Your task to perform on an android device: Open eBay Image 0: 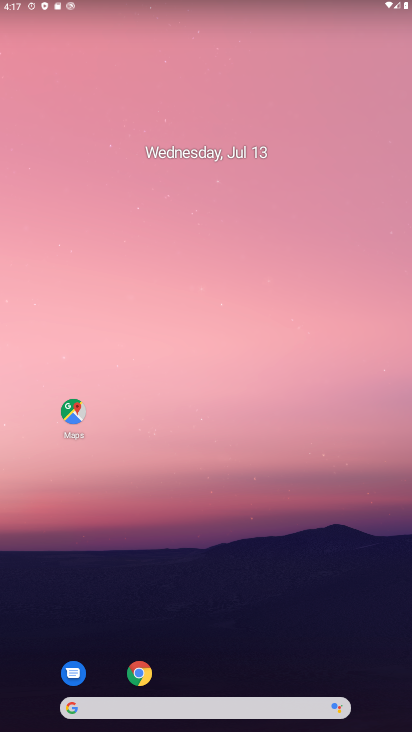
Step 0: click (136, 138)
Your task to perform on an android device: Open eBay Image 1: 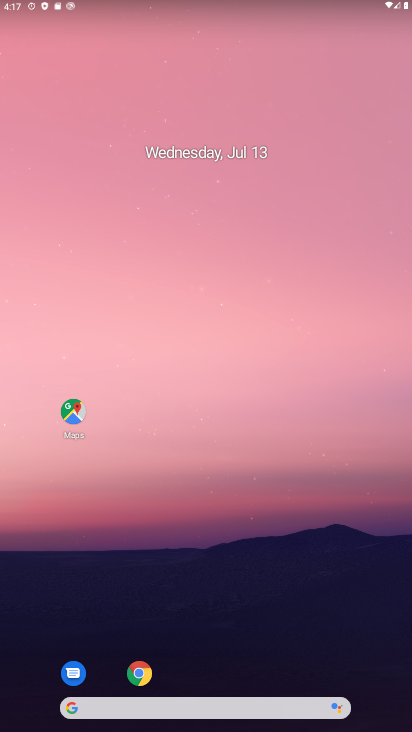
Step 1: drag from (232, 675) to (222, 187)
Your task to perform on an android device: Open eBay Image 2: 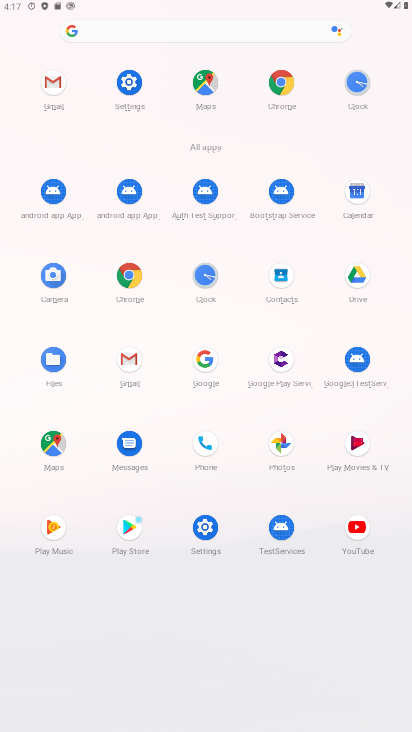
Step 2: click (286, 83)
Your task to perform on an android device: Open eBay Image 3: 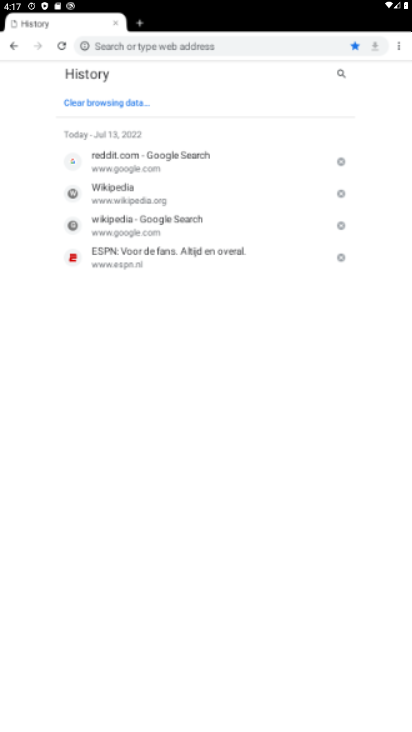
Step 3: click (285, 83)
Your task to perform on an android device: Open eBay Image 4: 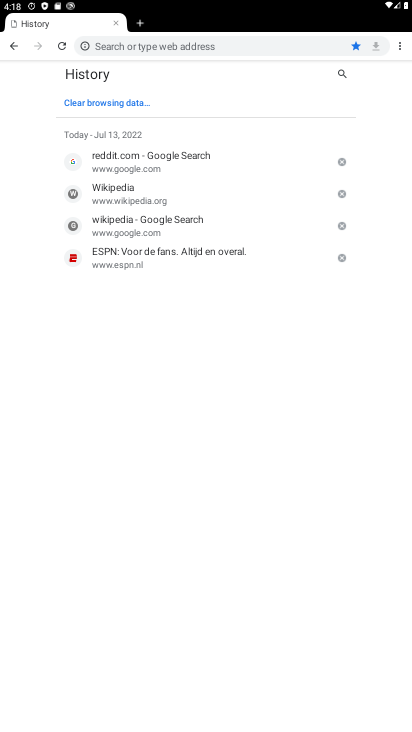
Step 4: click (7, 52)
Your task to perform on an android device: Open eBay Image 5: 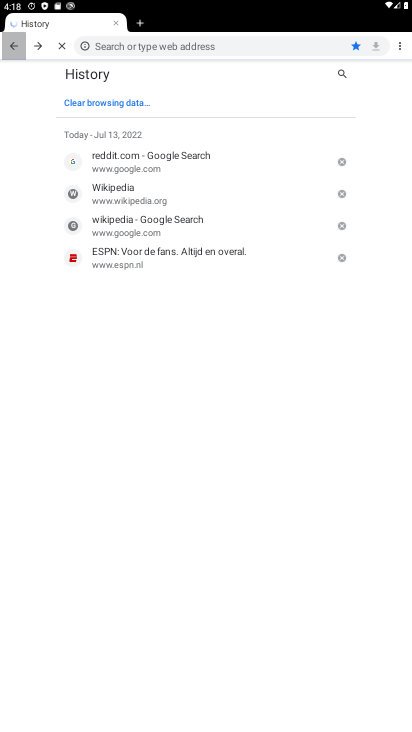
Step 5: click (9, 43)
Your task to perform on an android device: Open eBay Image 6: 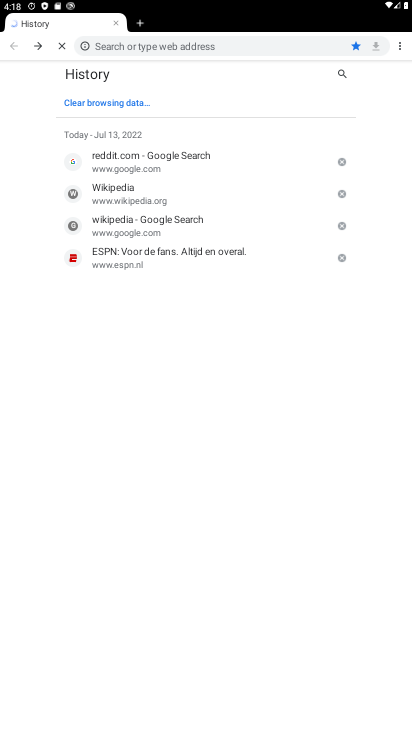
Step 6: drag from (398, 43) to (323, 191)
Your task to perform on an android device: Open eBay Image 7: 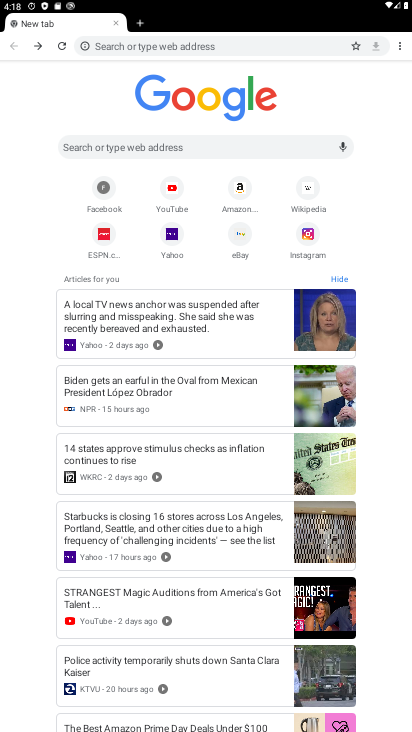
Step 7: click (227, 239)
Your task to perform on an android device: Open eBay Image 8: 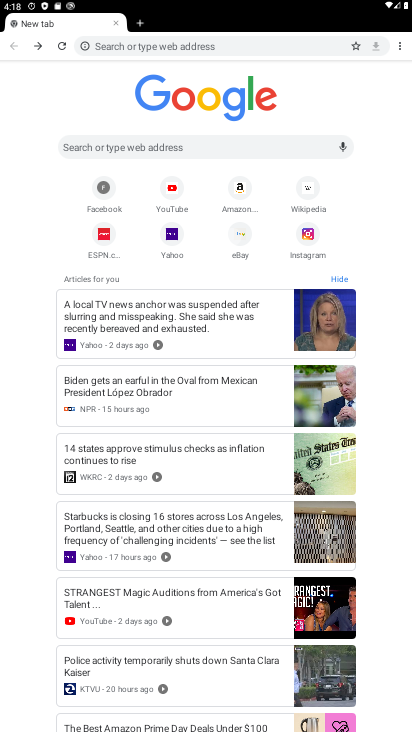
Step 8: click (230, 238)
Your task to perform on an android device: Open eBay Image 9: 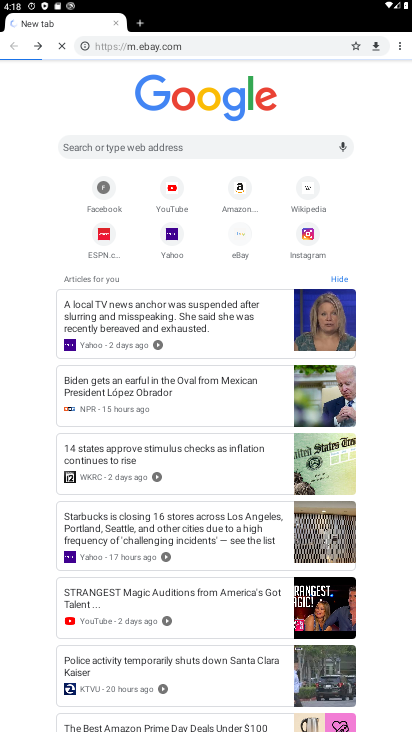
Step 9: click (235, 236)
Your task to perform on an android device: Open eBay Image 10: 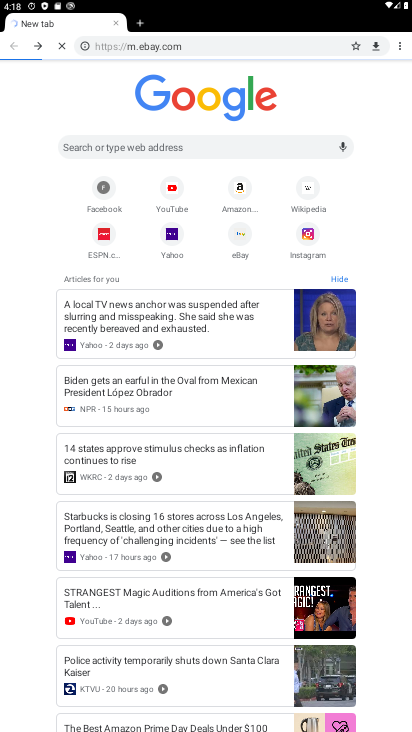
Step 10: click (237, 236)
Your task to perform on an android device: Open eBay Image 11: 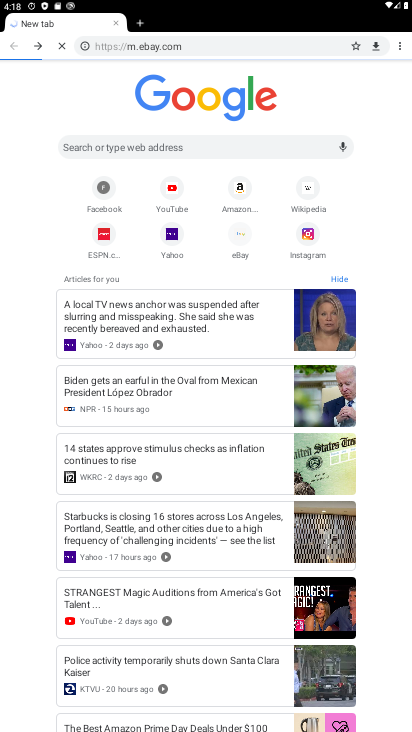
Step 11: click (237, 236)
Your task to perform on an android device: Open eBay Image 12: 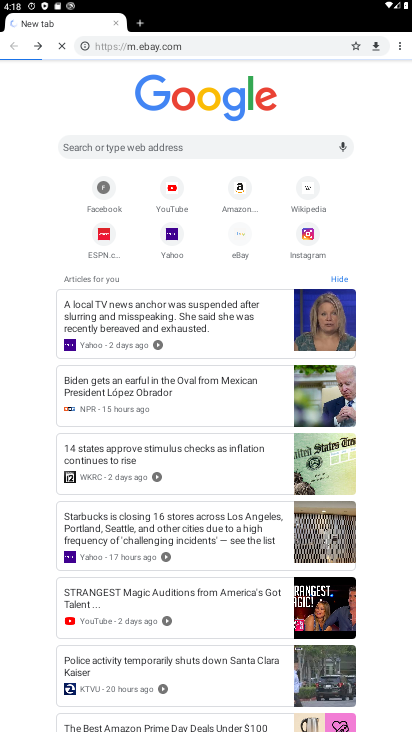
Step 12: click (238, 238)
Your task to perform on an android device: Open eBay Image 13: 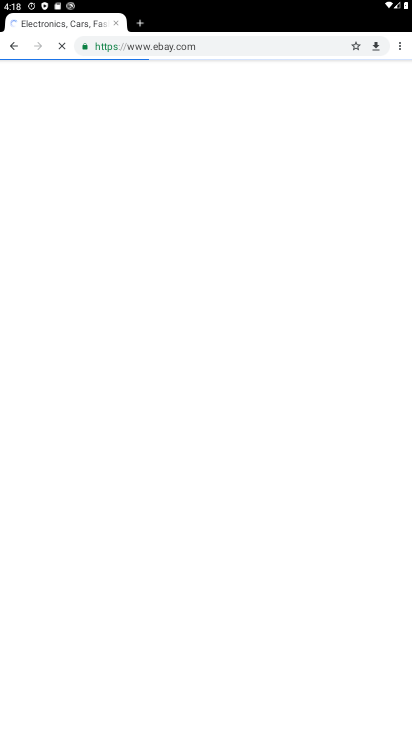
Step 13: click (243, 260)
Your task to perform on an android device: Open eBay Image 14: 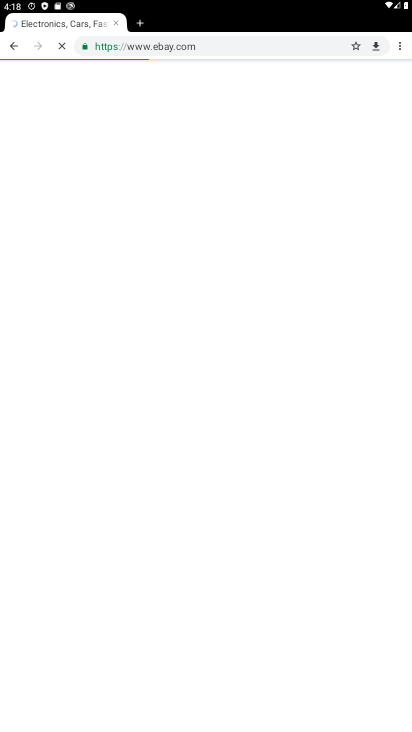
Step 14: click (246, 249)
Your task to perform on an android device: Open eBay Image 15: 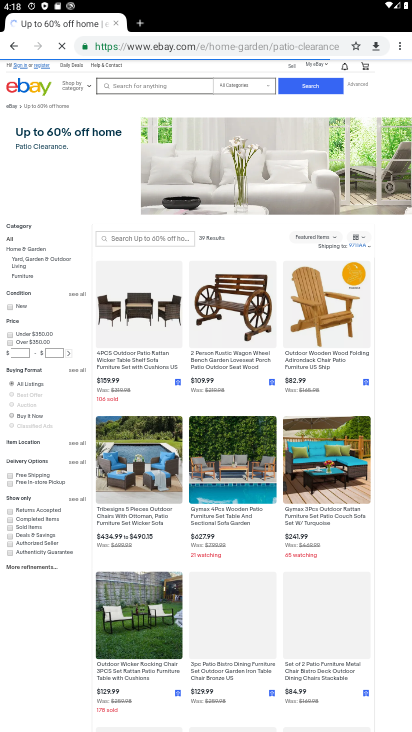
Step 15: task complete